Your task to perform on an android device: Go to accessibility settings Image 0: 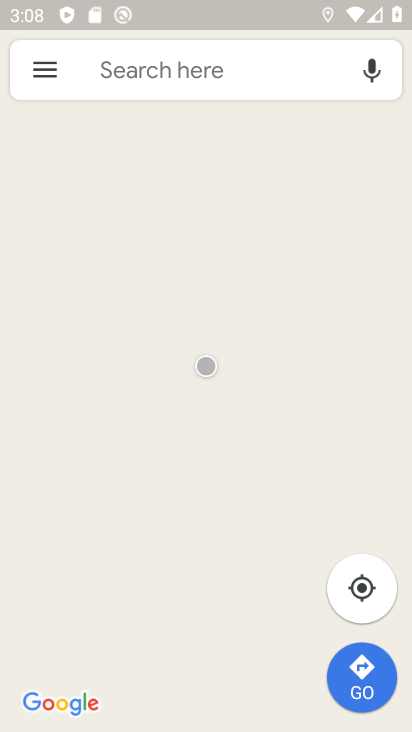
Step 0: click (250, 584)
Your task to perform on an android device: Go to accessibility settings Image 1: 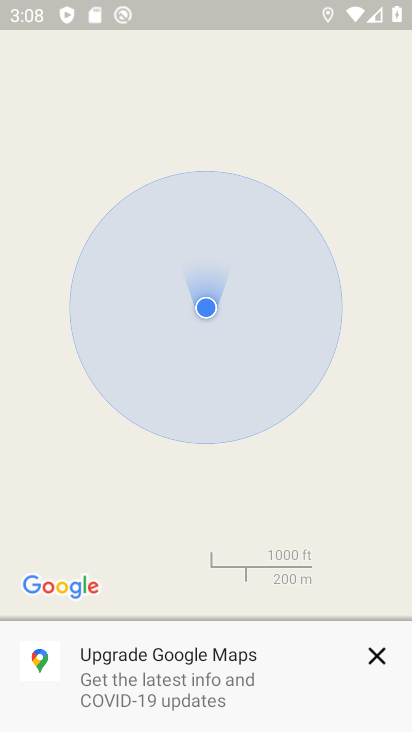
Step 1: press home button
Your task to perform on an android device: Go to accessibility settings Image 2: 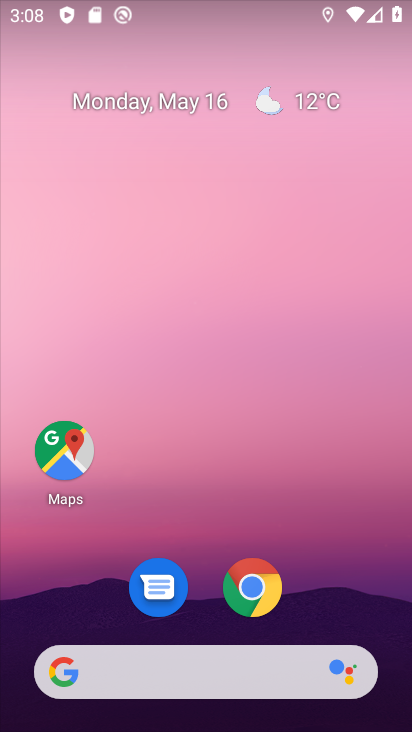
Step 2: drag from (391, 273) to (386, 196)
Your task to perform on an android device: Go to accessibility settings Image 3: 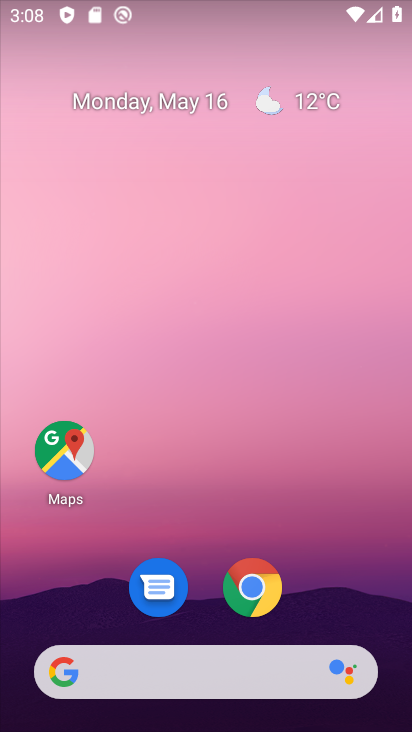
Step 3: drag from (395, 654) to (348, 213)
Your task to perform on an android device: Go to accessibility settings Image 4: 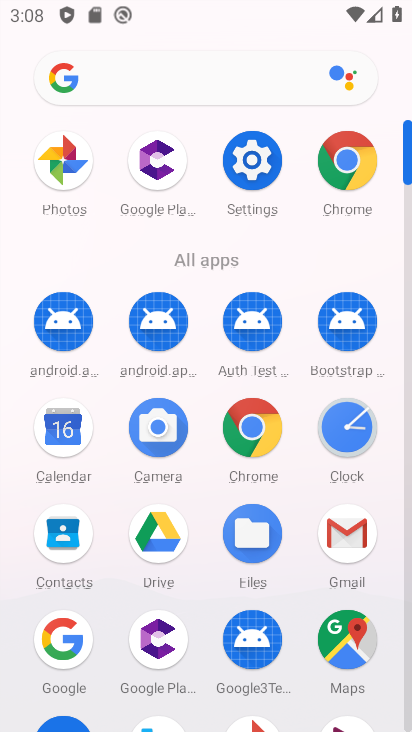
Step 4: click (239, 157)
Your task to perform on an android device: Go to accessibility settings Image 5: 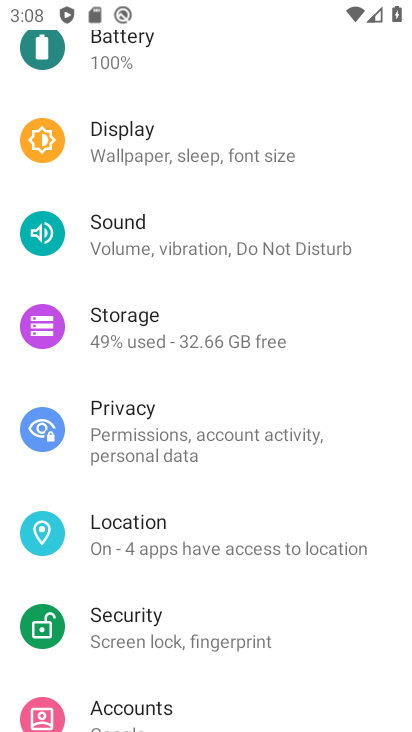
Step 5: drag from (310, 665) to (331, 342)
Your task to perform on an android device: Go to accessibility settings Image 6: 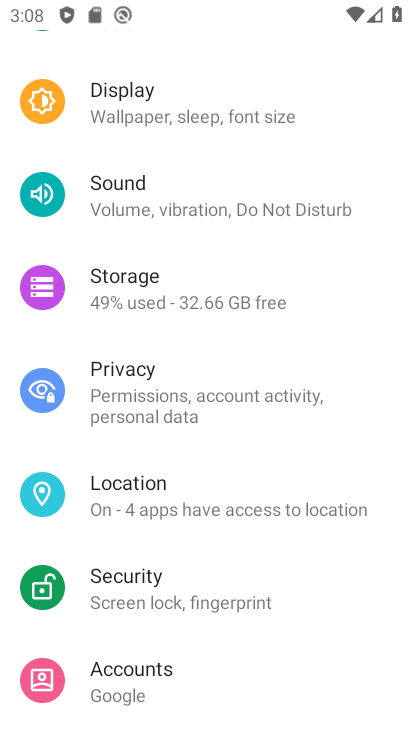
Step 6: drag from (309, 637) to (325, 400)
Your task to perform on an android device: Go to accessibility settings Image 7: 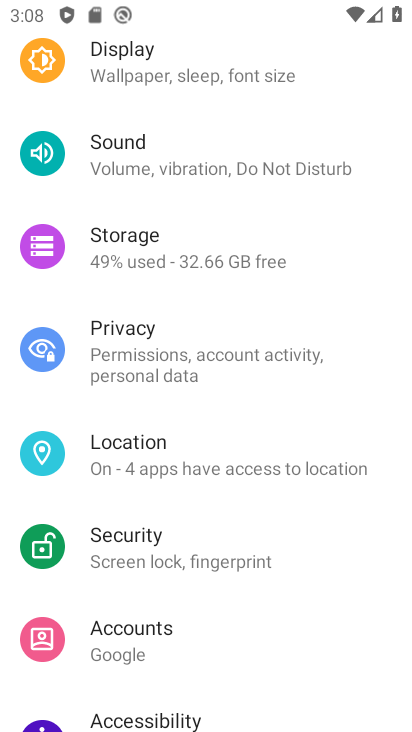
Step 7: drag from (317, 578) to (326, 448)
Your task to perform on an android device: Go to accessibility settings Image 8: 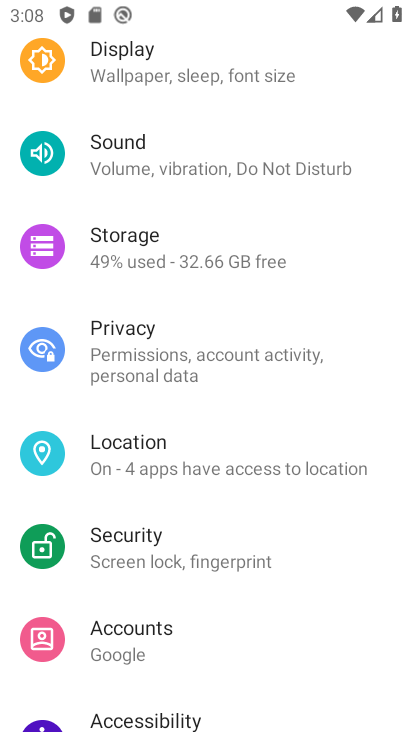
Step 8: click (117, 714)
Your task to perform on an android device: Go to accessibility settings Image 9: 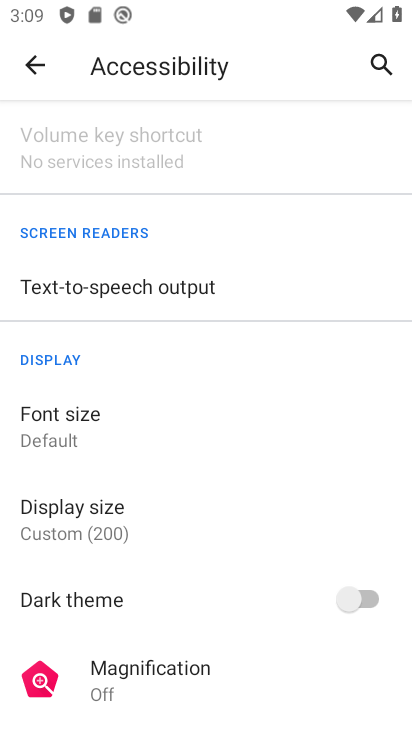
Step 9: task complete